Your task to perform on an android device: change notifications settings Image 0: 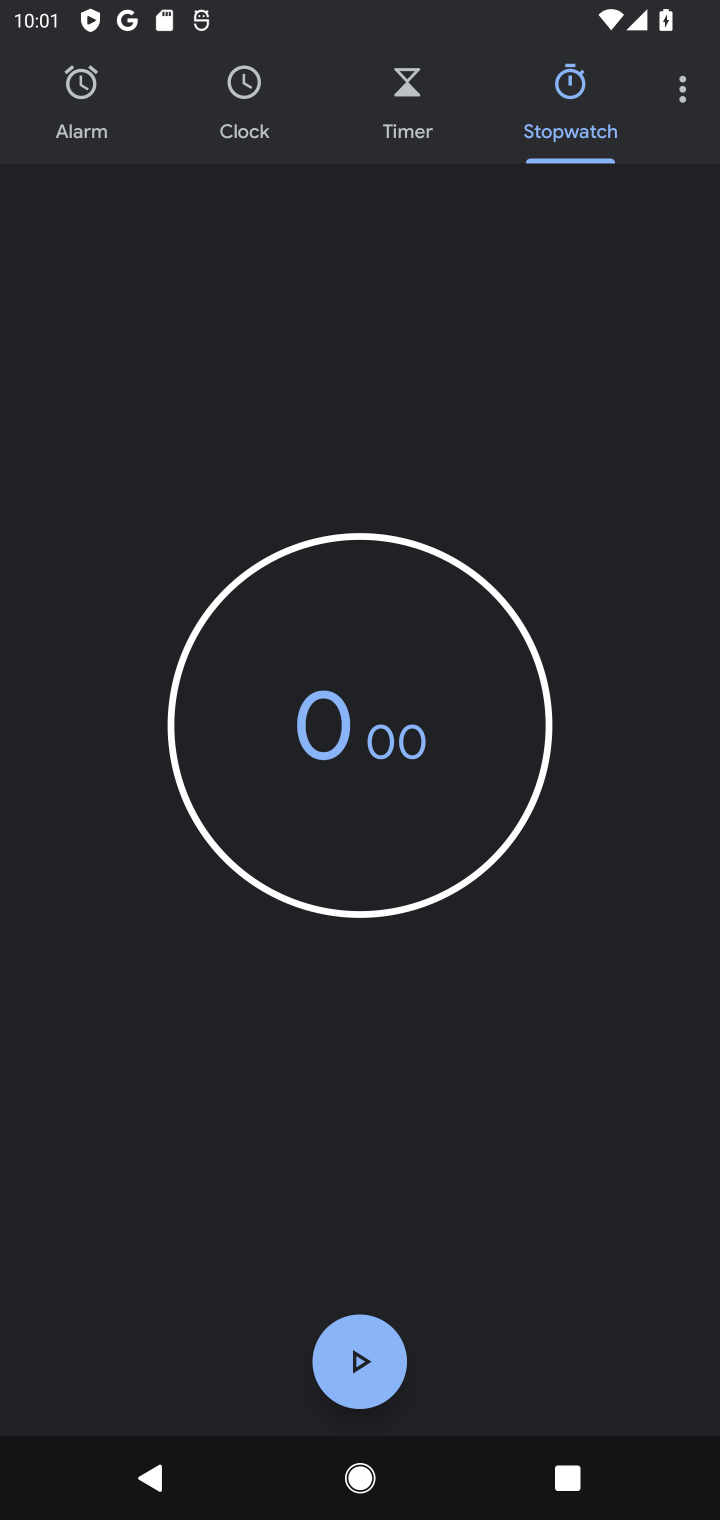
Step 0: press back button
Your task to perform on an android device: change notifications settings Image 1: 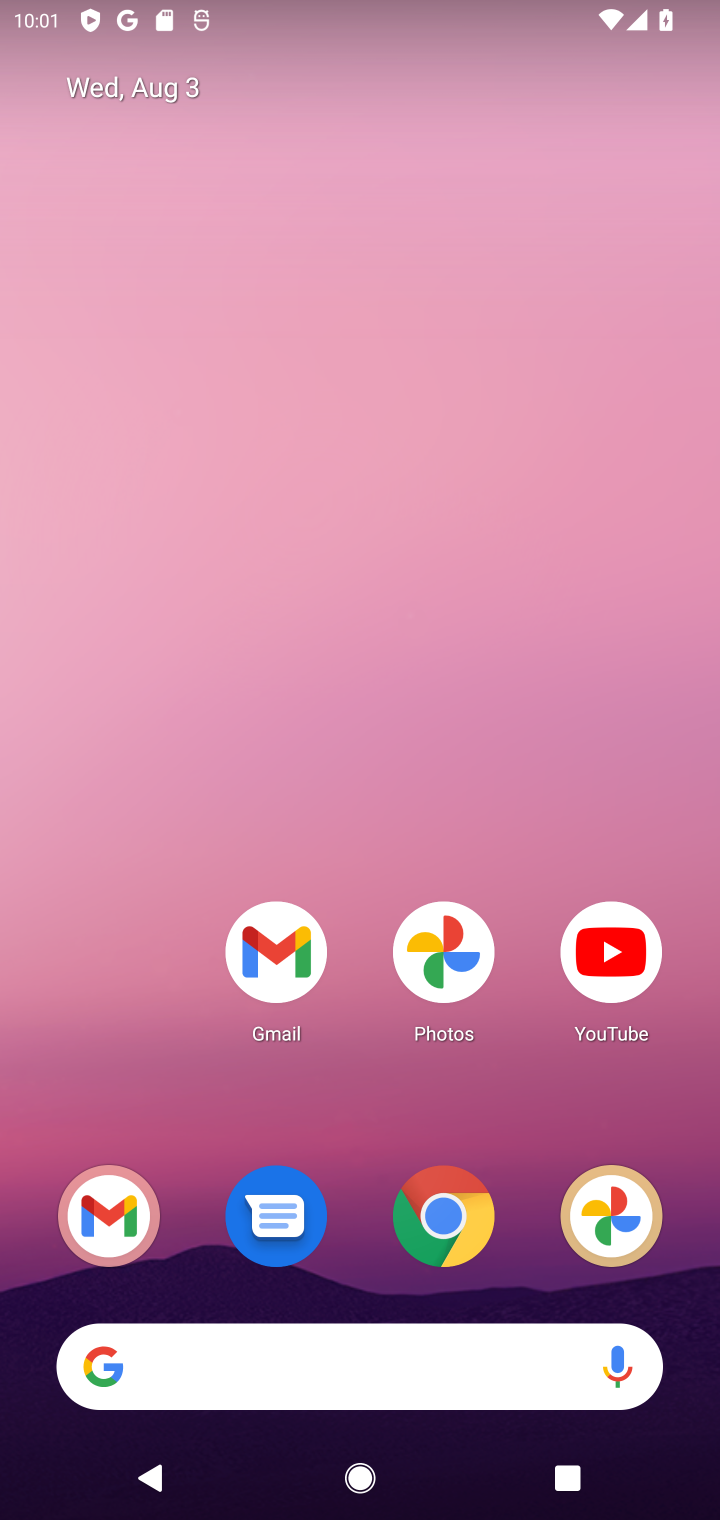
Step 1: drag from (183, 807) to (349, 1)
Your task to perform on an android device: change notifications settings Image 2: 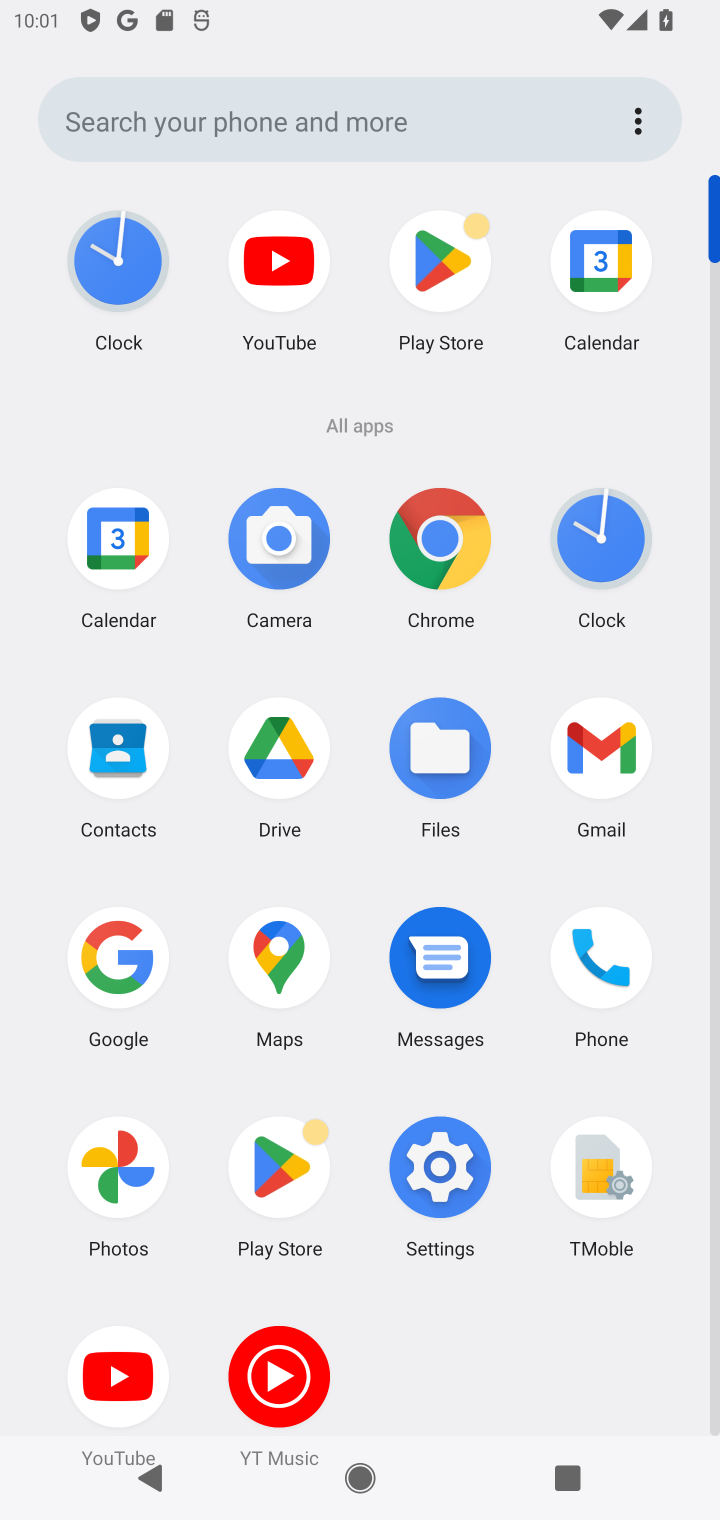
Step 2: click (426, 1182)
Your task to perform on an android device: change notifications settings Image 3: 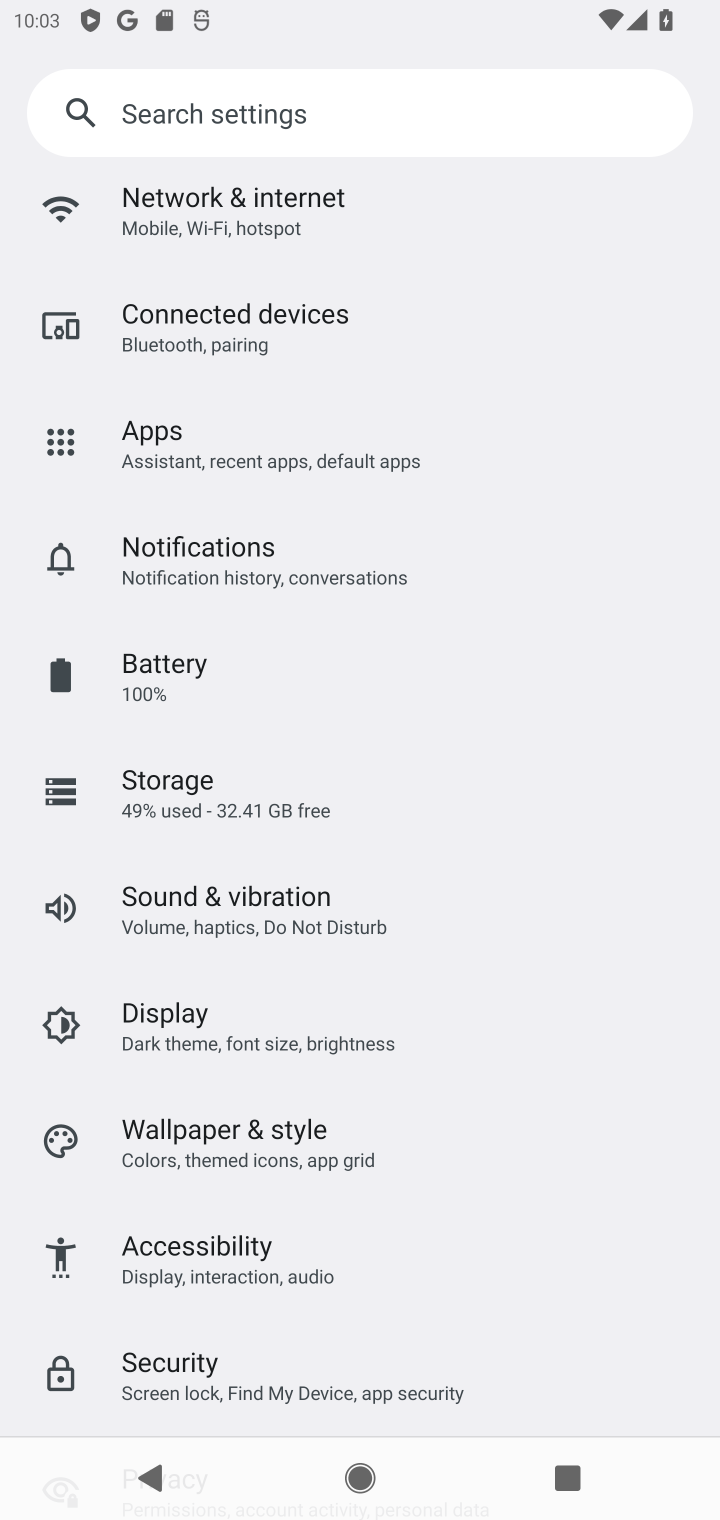
Step 3: drag from (362, 346) to (412, 1517)
Your task to perform on an android device: change notifications settings Image 4: 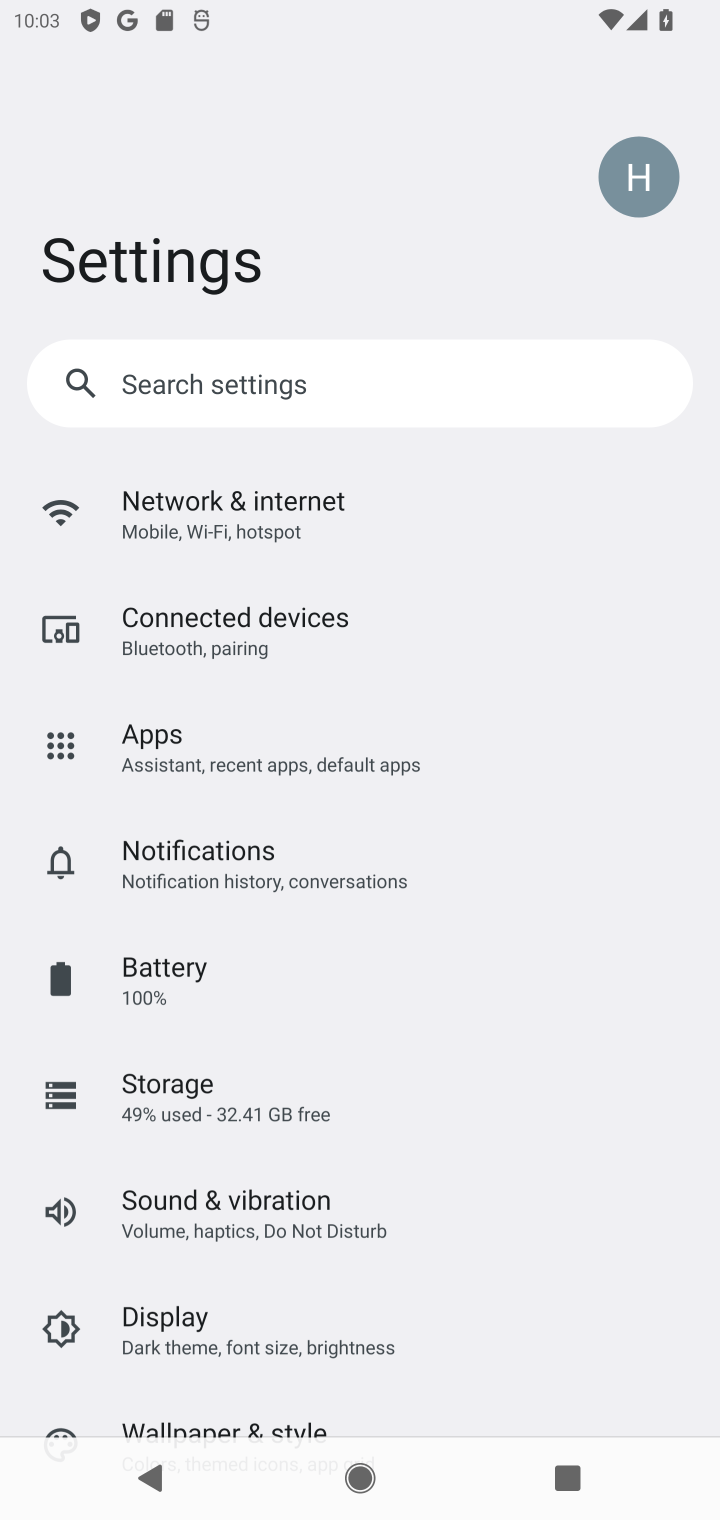
Step 4: click (229, 856)
Your task to perform on an android device: change notifications settings Image 5: 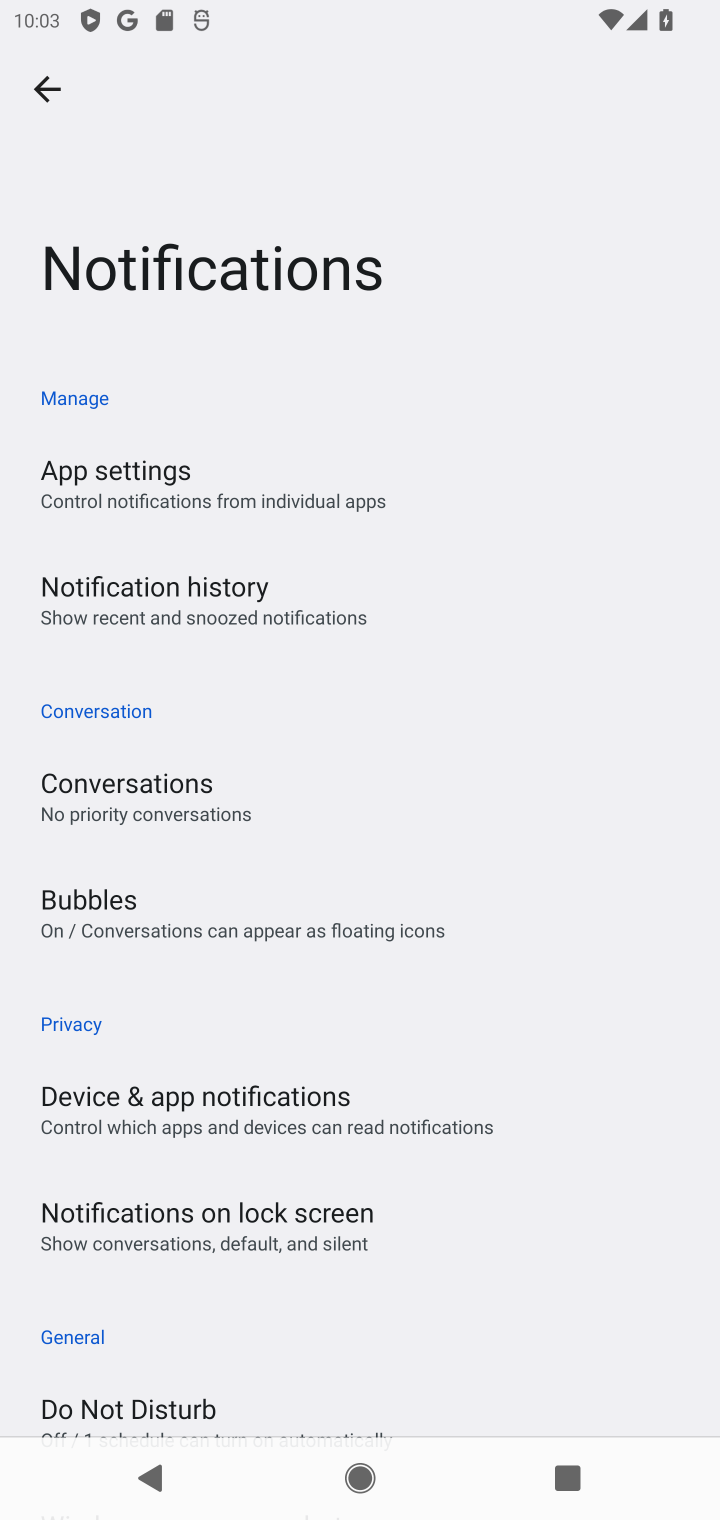
Step 5: click (232, 1101)
Your task to perform on an android device: change notifications settings Image 6: 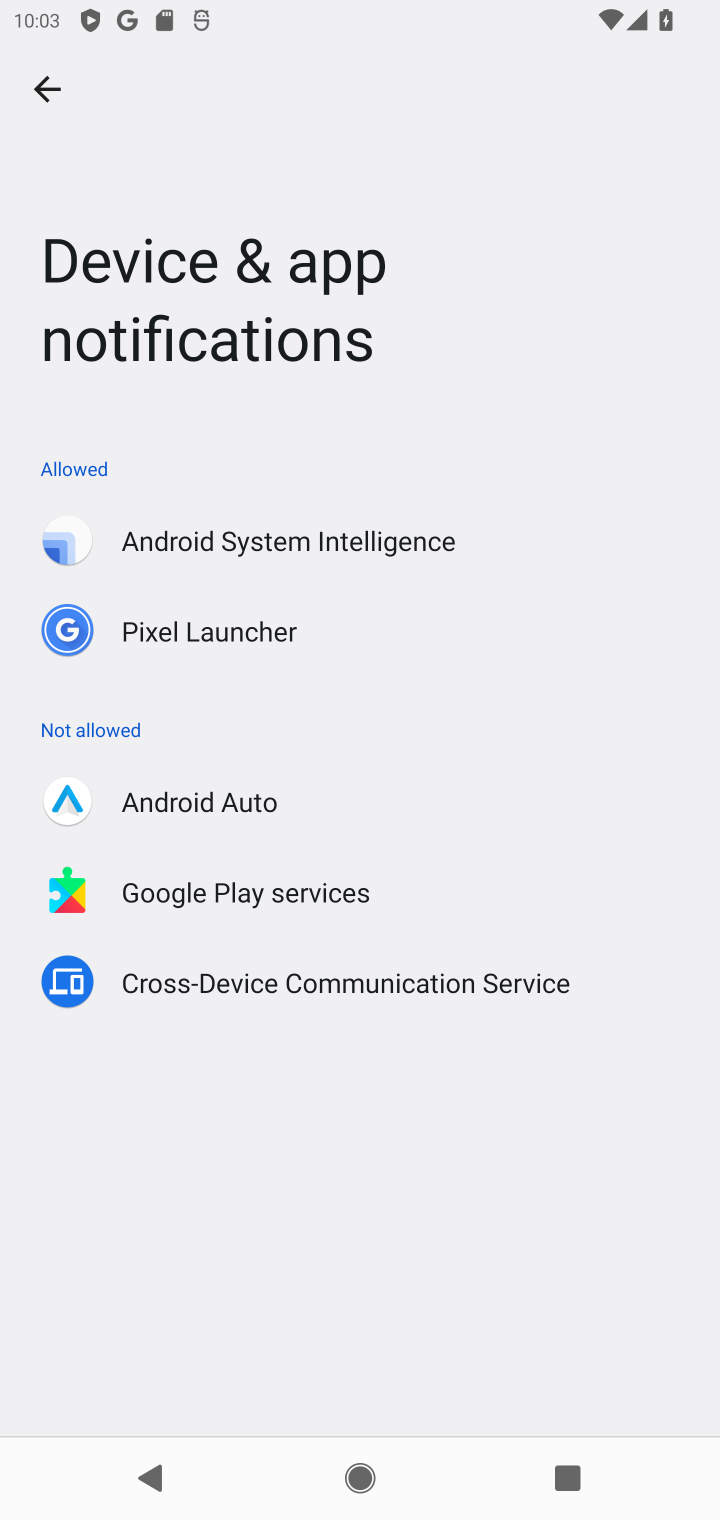
Step 6: click (59, 60)
Your task to perform on an android device: change notifications settings Image 7: 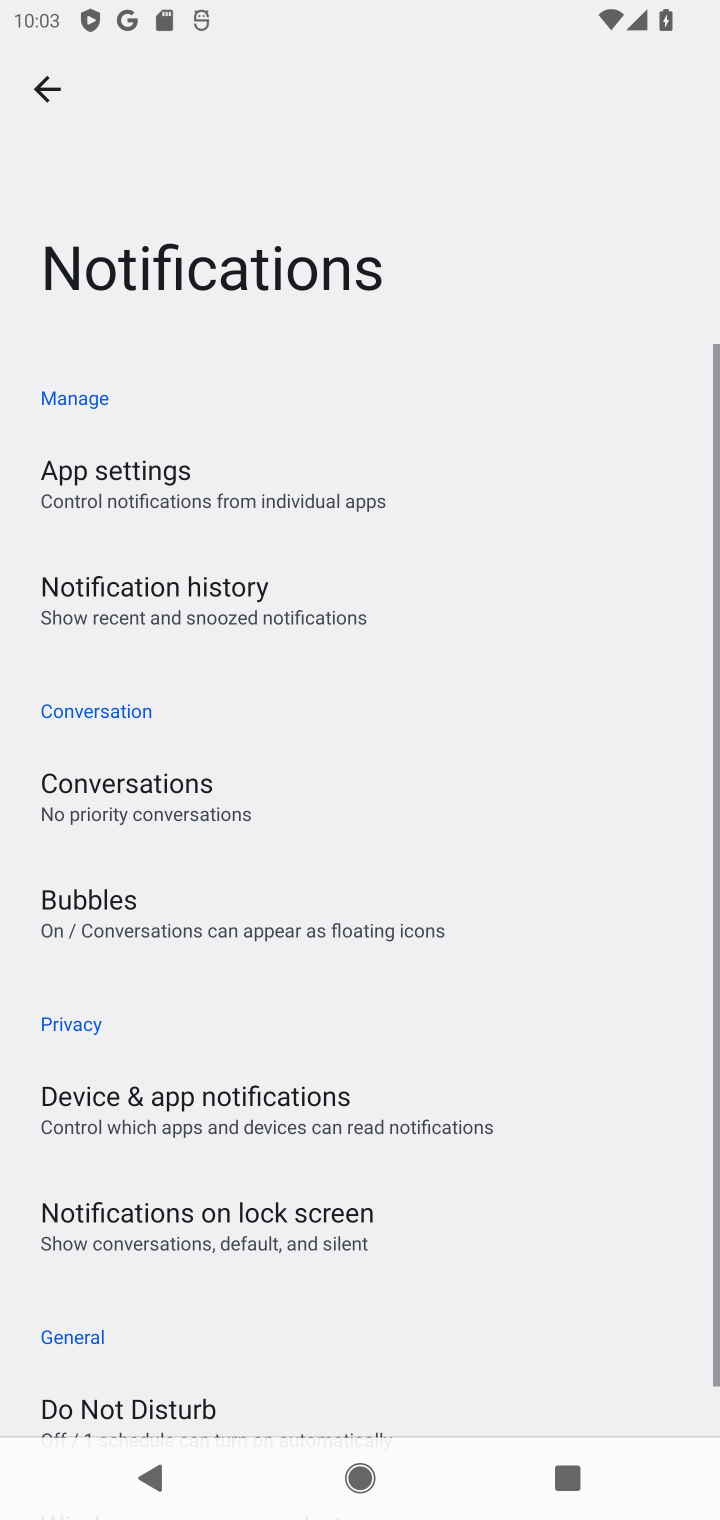
Step 7: drag from (297, 1355) to (513, 45)
Your task to perform on an android device: change notifications settings Image 8: 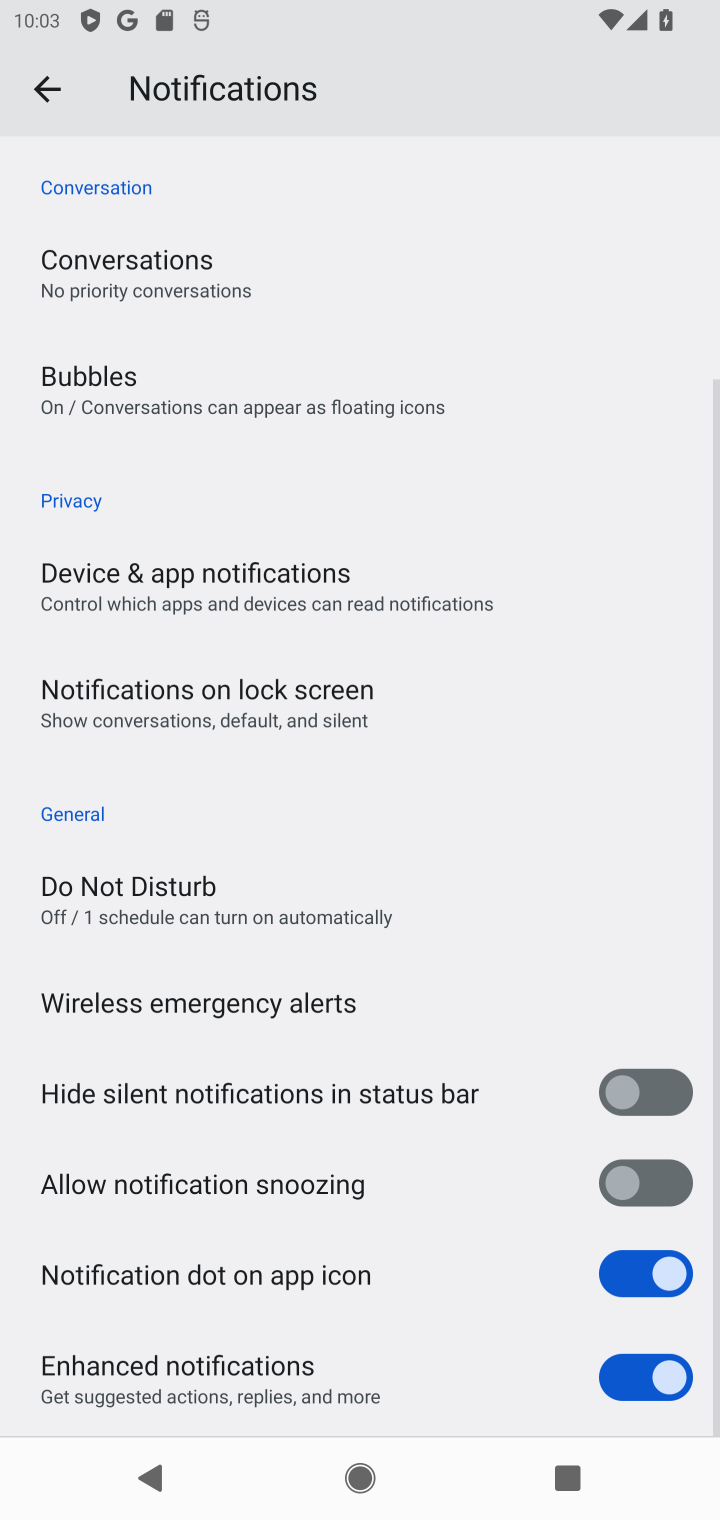
Step 8: click (659, 1075)
Your task to perform on an android device: change notifications settings Image 9: 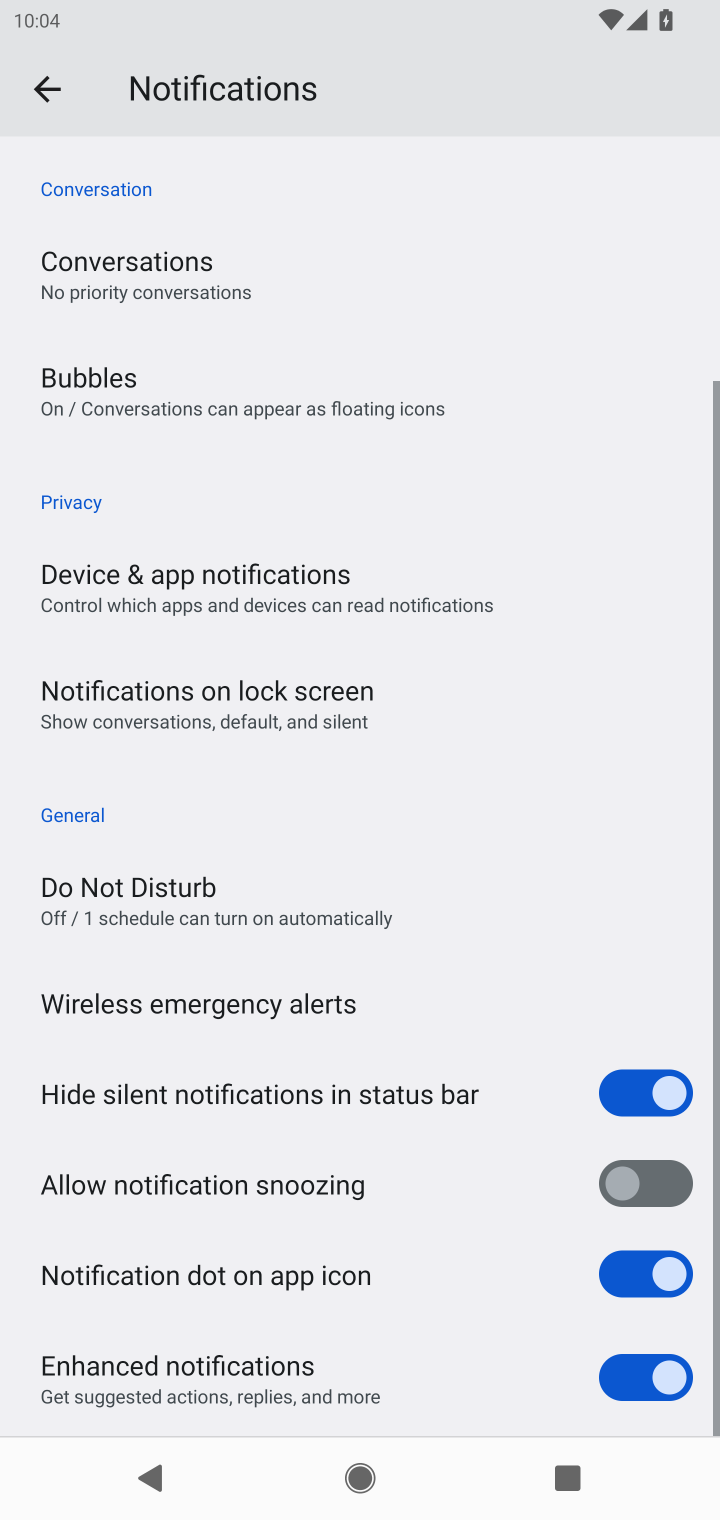
Step 9: task complete